Your task to perform on an android device: Open internet settings Image 0: 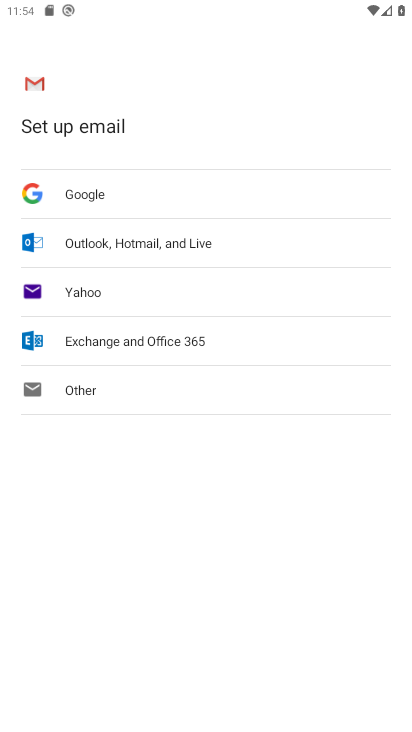
Step 0: click (247, 520)
Your task to perform on an android device: Open internet settings Image 1: 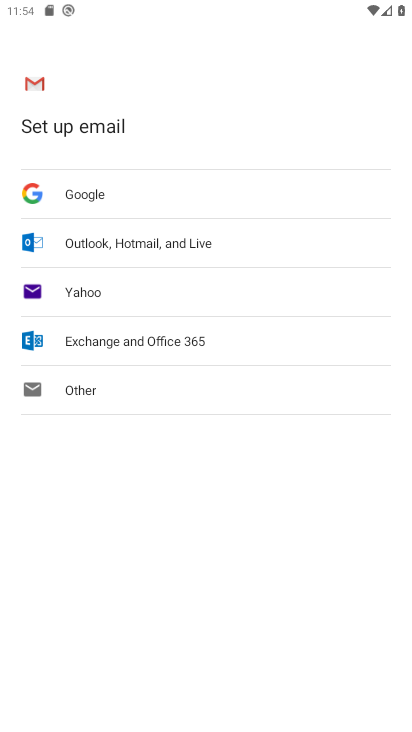
Step 1: press home button
Your task to perform on an android device: Open internet settings Image 2: 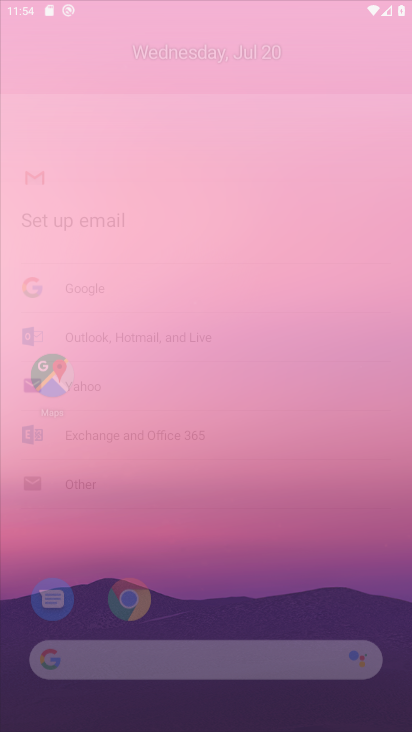
Step 2: drag from (234, 634) to (228, 106)
Your task to perform on an android device: Open internet settings Image 3: 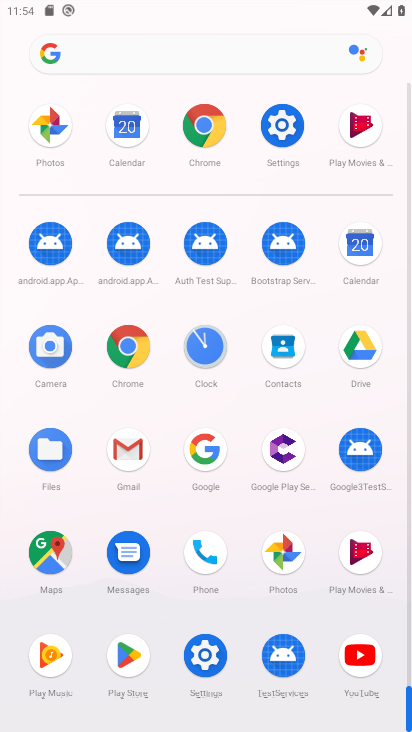
Step 3: click (285, 122)
Your task to perform on an android device: Open internet settings Image 4: 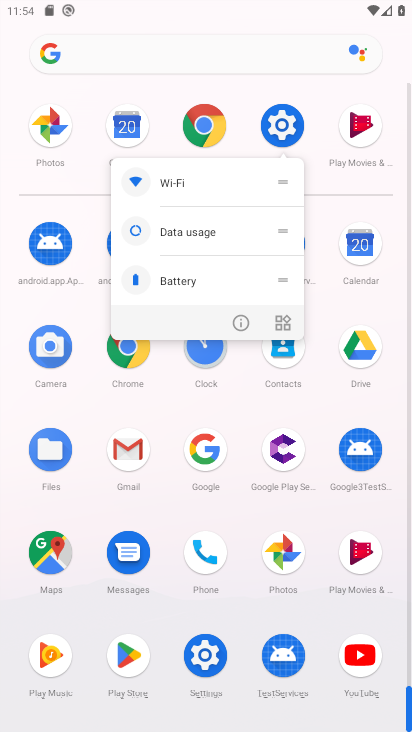
Step 4: click (235, 325)
Your task to perform on an android device: Open internet settings Image 5: 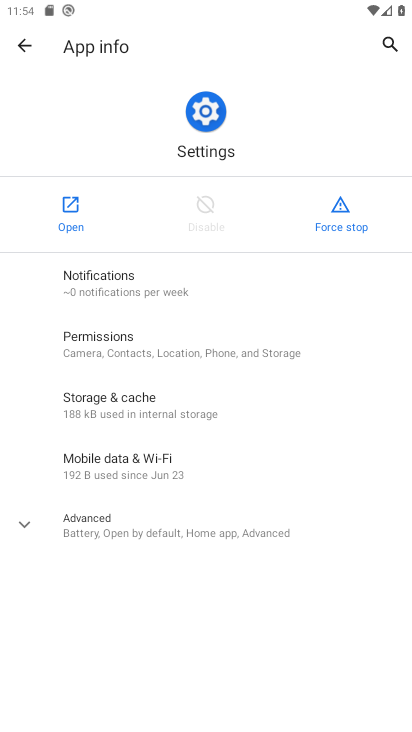
Step 5: click (76, 210)
Your task to perform on an android device: Open internet settings Image 6: 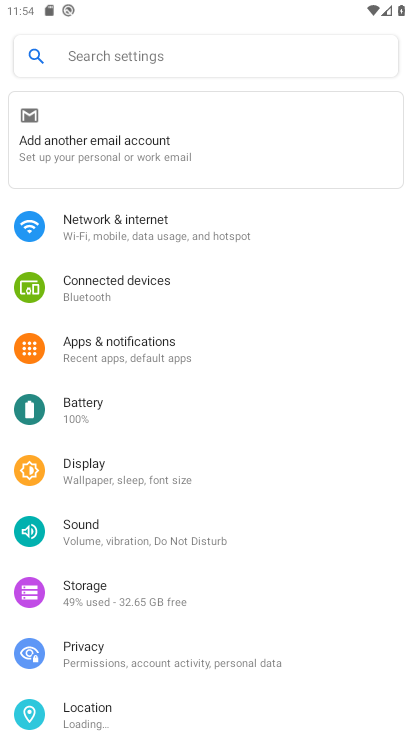
Step 6: click (84, 245)
Your task to perform on an android device: Open internet settings Image 7: 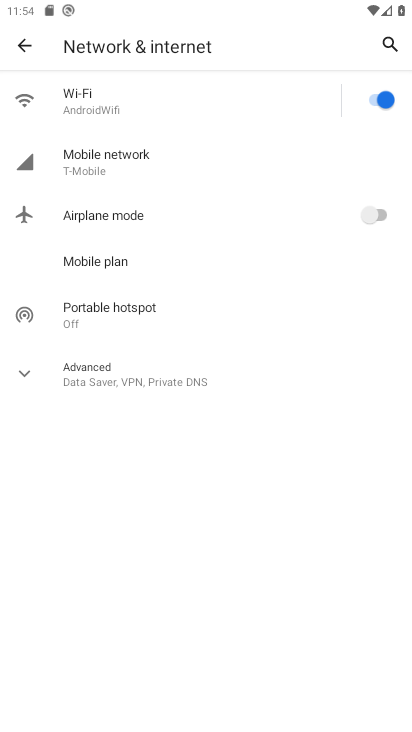
Step 7: task complete